Your task to perform on an android device: What's the weather going to be tomorrow? Image 0: 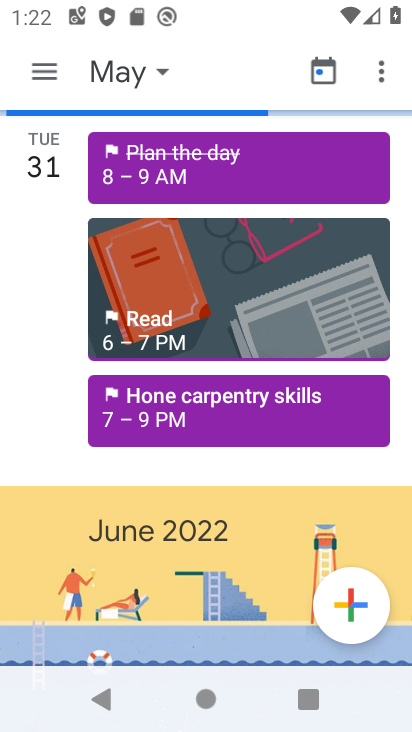
Step 0: task complete